Your task to perform on an android device: Go to sound settings Image 0: 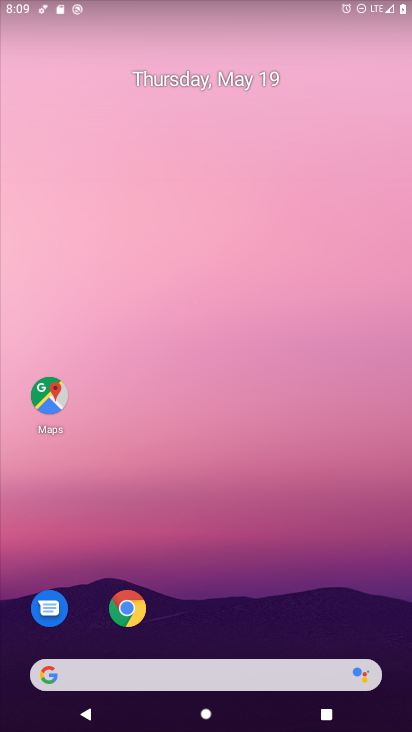
Step 0: drag from (399, 692) to (390, 130)
Your task to perform on an android device: Go to sound settings Image 1: 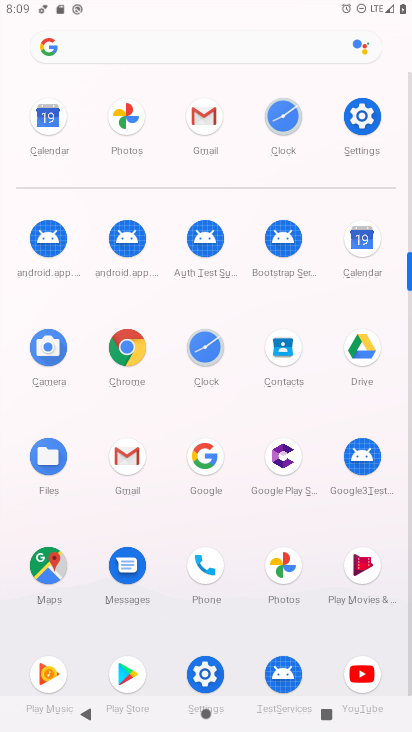
Step 1: click (362, 116)
Your task to perform on an android device: Go to sound settings Image 2: 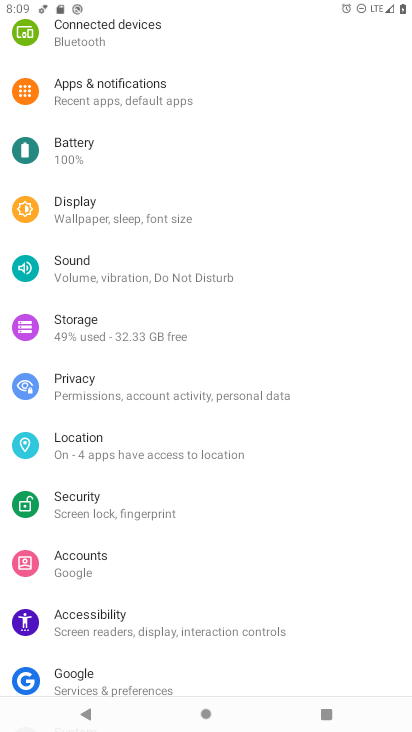
Step 2: click (73, 273)
Your task to perform on an android device: Go to sound settings Image 3: 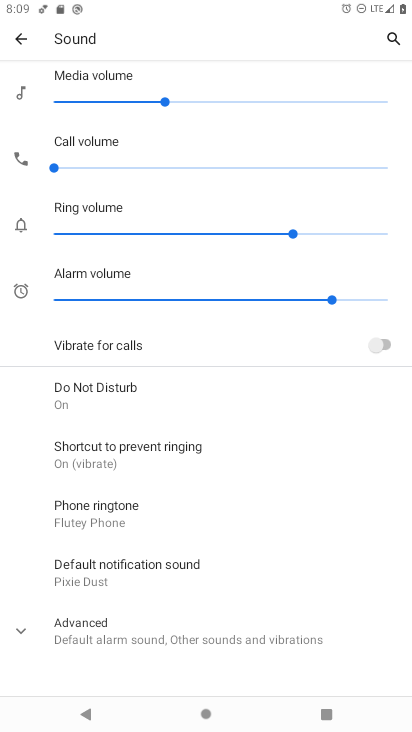
Step 3: task complete